Your task to perform on an android device: Open Youtube and go to the subscriptions tab Image 0: 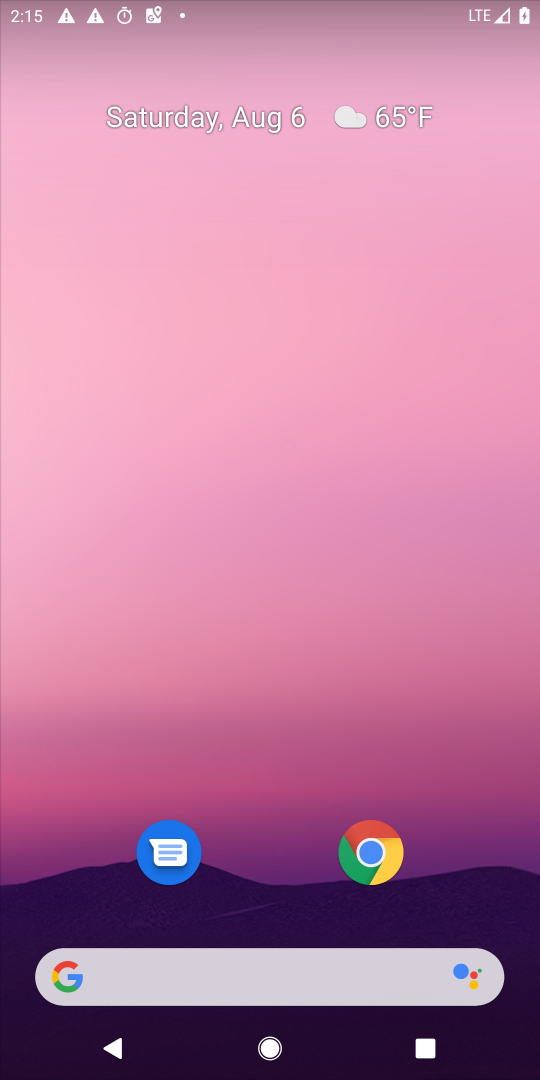
Step 0: press home button
Your task to perform on an android device: Open Youtube and go to the subscriptions tab Image 1: 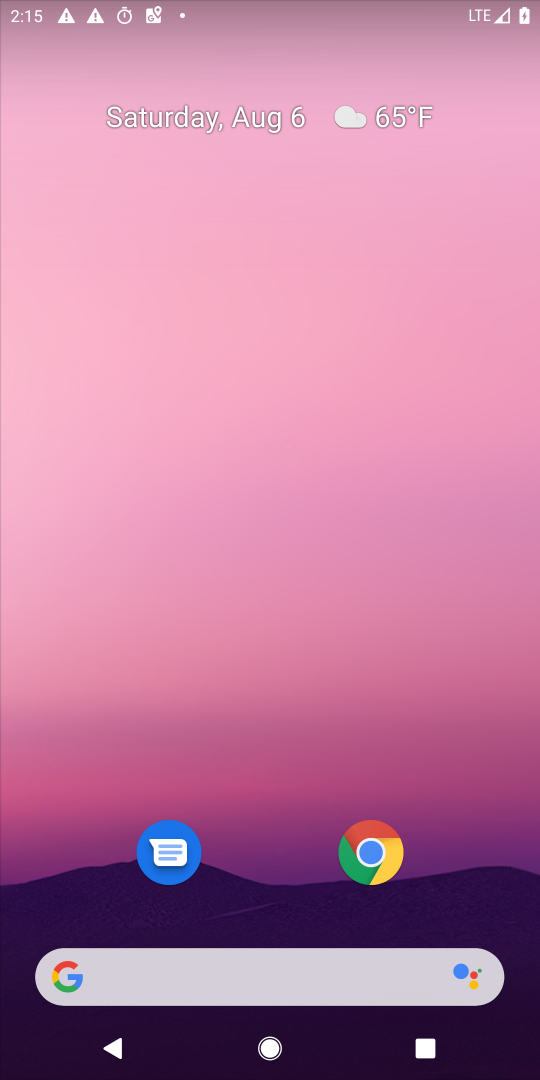
Step 1: drag from (342, 976) to (246, 204)
Your task to perform on an android device: Open Youtube and go to the subscriptions tab Image 2: 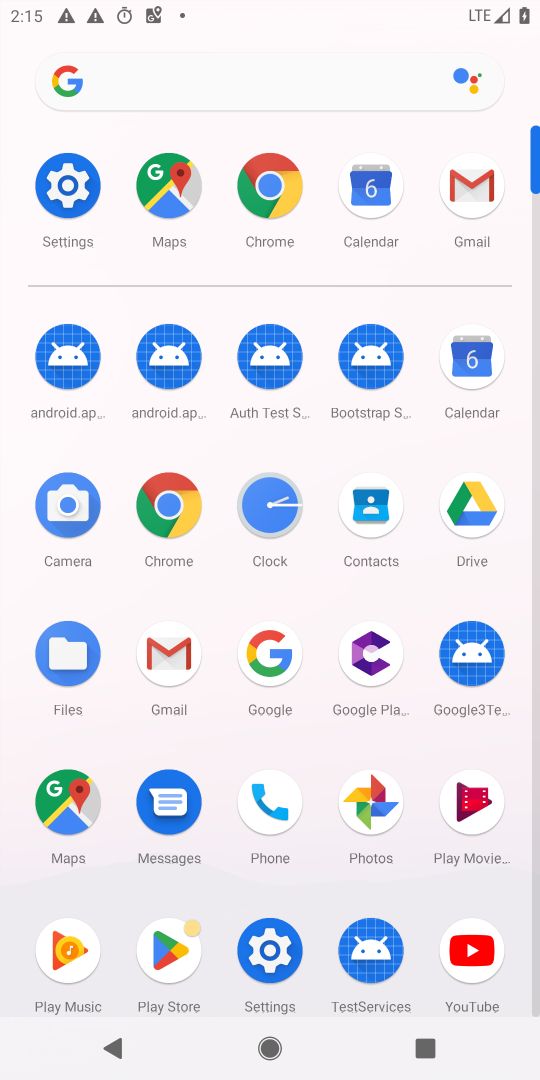
Step 2: click (462, 955)
Your task to perform on an android device: Open Youtube and go to the subscriptions tab Image 3: 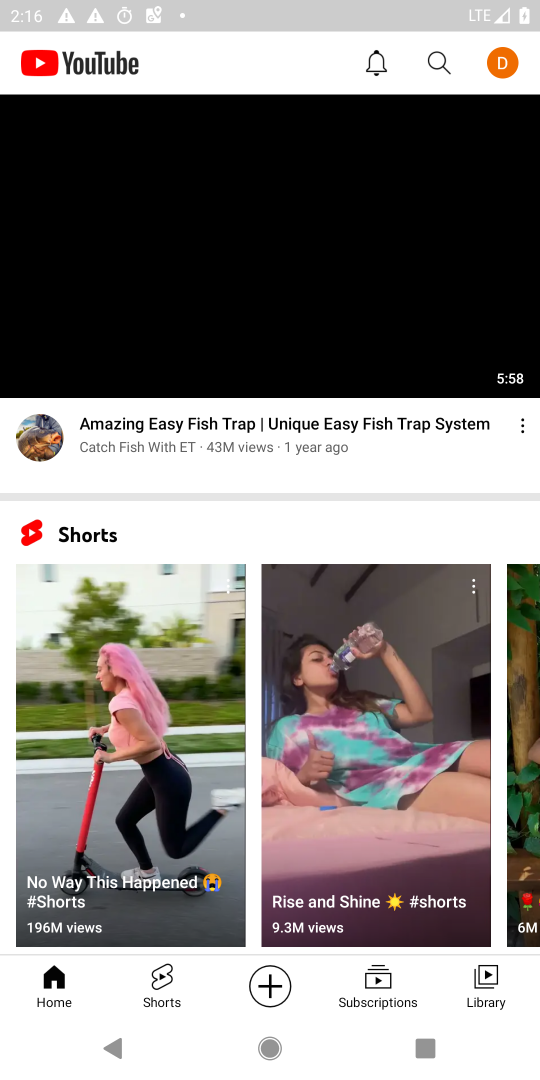
Step 3: click (373, 990)
Your task to perform on an android device: Open Youtube and go to the subscriptions tab Image 4: 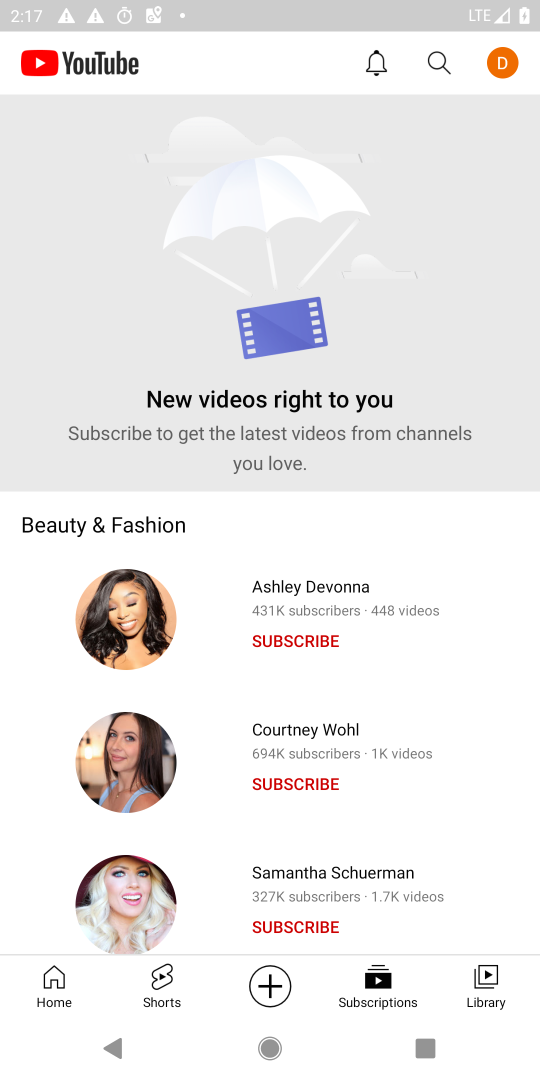
Step 4: task complete